Your task to perform on an android device: empty trash in the gmail app Image 0: 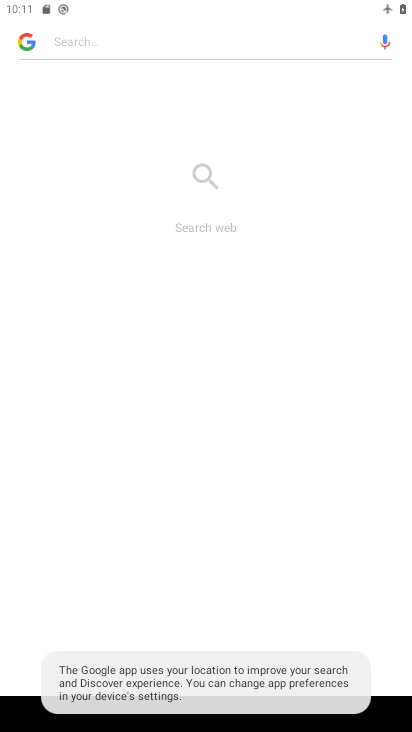
Step 0: press home button
Your task to perform on an android device: empty trash in the gmail app Image 1: 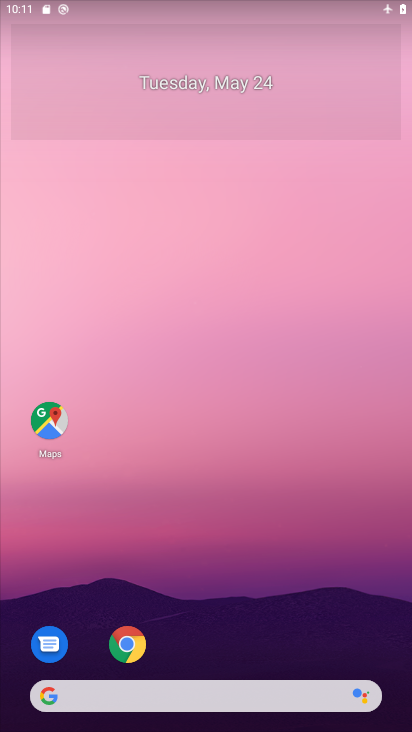
Step 1: drag from (249, 580) to (190, 183)
Your task to perform on an android device: empty trash in the gmail app Image 2: 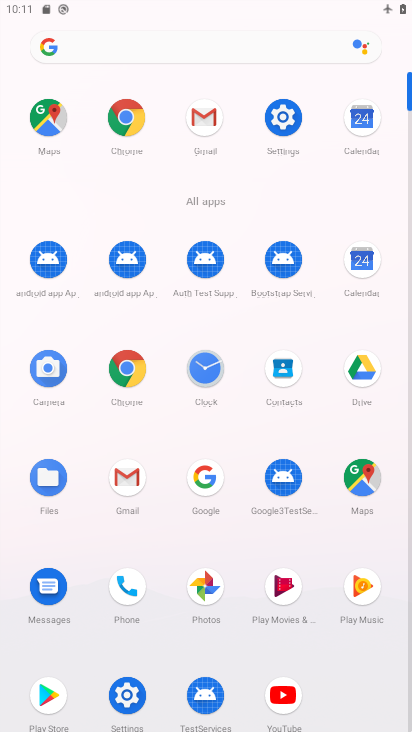
Step 2: click (120, 486)
Your task to perform on an android device: empty trash in the gmail app Image 3: 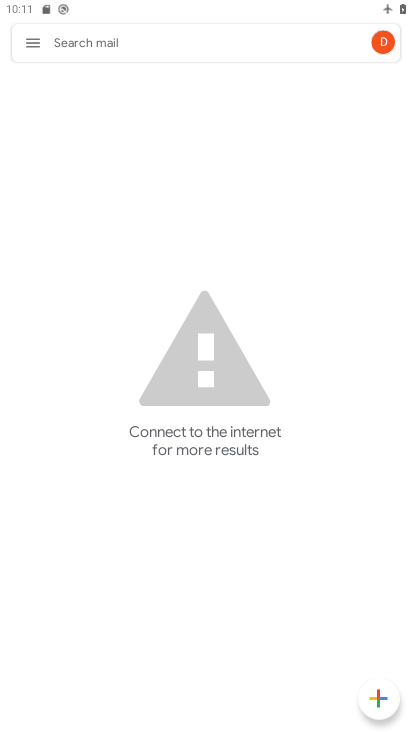
Step 3: click (30, 43)
Your task to perform on an android device: empty trash in the gmail app Image 4: 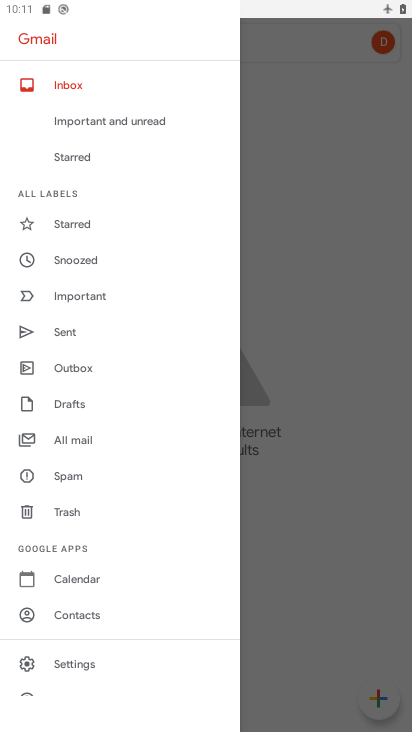
Step 4: click (64, 507)
Your task to perform on an android device: empty trash in the gmail app Image 5: 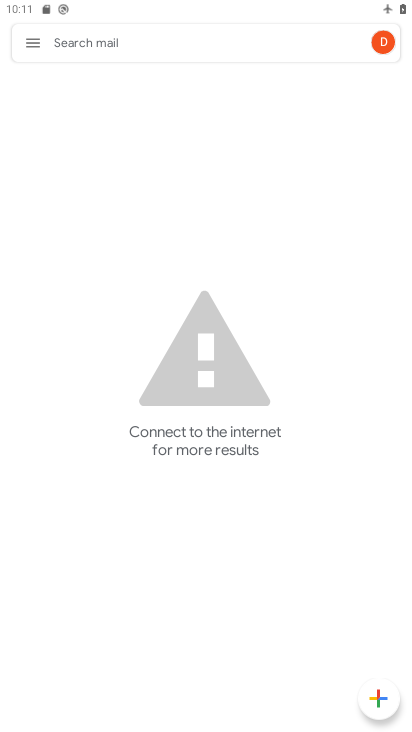
Step 5: task complete